Your task to perform on an android device: Open wifi settings Image 0: 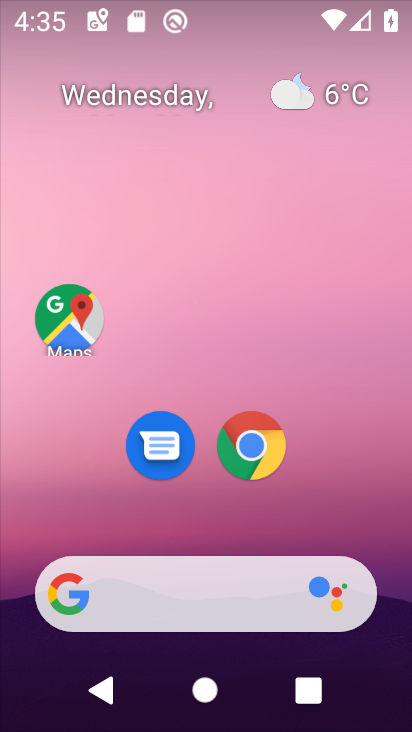
Step 0: drag from (219, 530) to (251, 80)
Your task to perform on an android device: Open wifi settings Image 1: 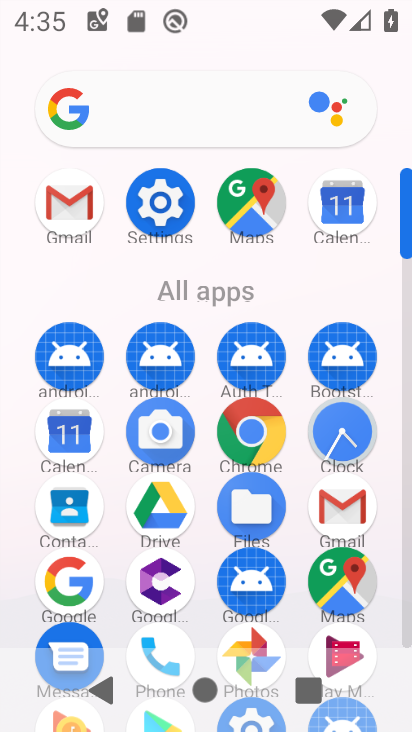
Step 1: click (174, 221)
Your task to perform on an android device: Open wifi settings Image 2: 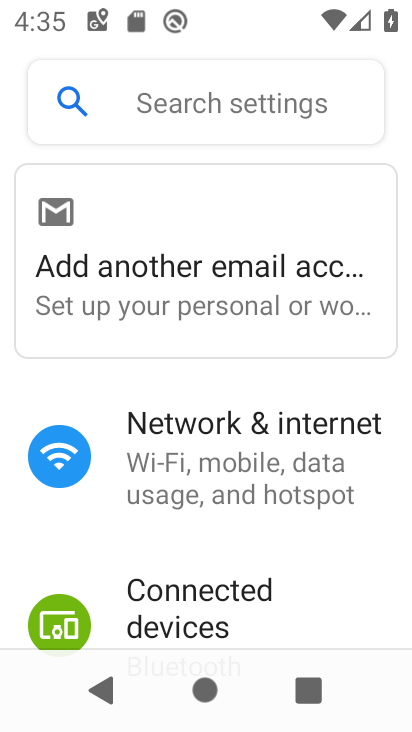
Step 2: click (226, 421)
Your task to perform on an android device: Open wifi settings Image 3: 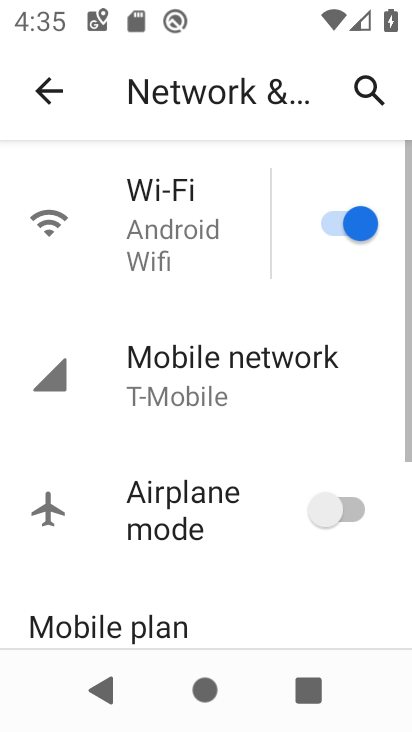
Step 3: click (175, 250)
Your task to perform on an android device: Open wifi settings Image 4: 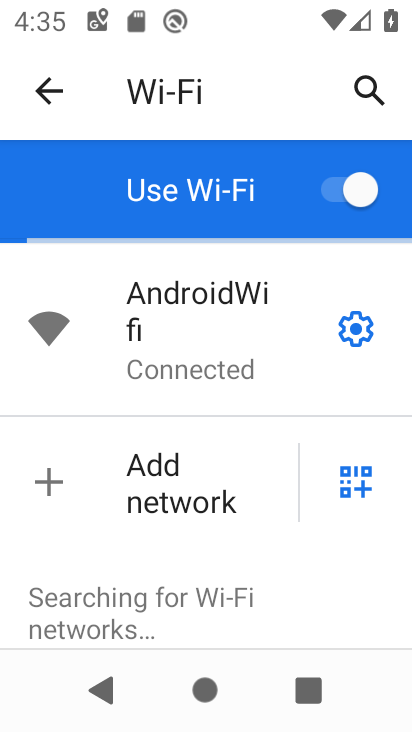
Step 4: task complete